Your task to perform on an android device: Clear the cart on costco.com. Add "acer predator" to the cart on costco.com Image 0: 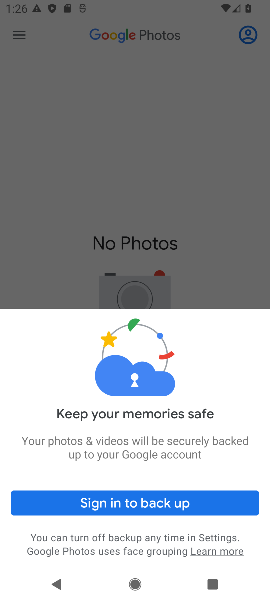
Step 0: press home button
Your task to perform on an android device: Clear the cart on costco.com. Add "acer predator" to the cart on costco.com Image 1: 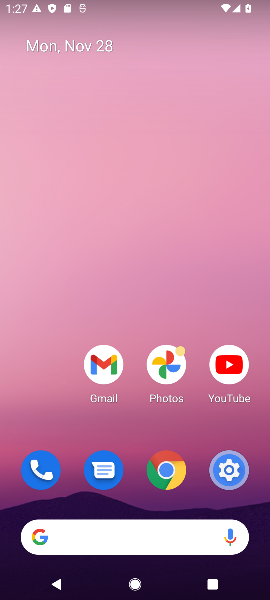
Step 1: click (163, 537)
Your task to perform on an android device: Clear the cart on costco.com. Add "acer predator" to the cart on costco.com Image 2: 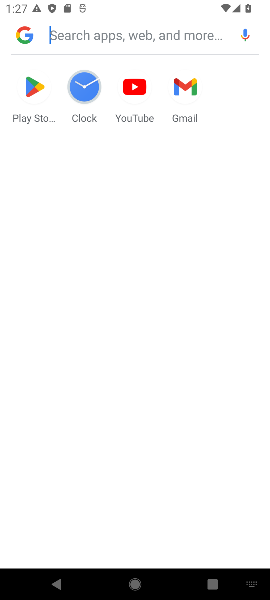
Step 2: type "costco.com"
Your task to perform on an android device: Clear the cart on costco.com. Add "acer predator" to the cart on costco.com Image 3: 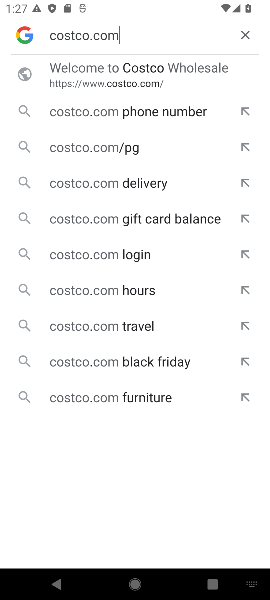
Step 3: click (101, 78)
Your task to perform on an android device: Clear the cart on costco.com. Add "acer predator" to the cart on costco.com Image 4: 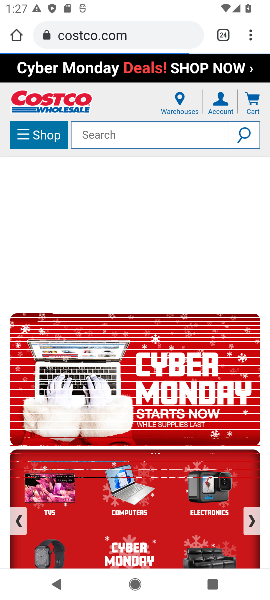
Step 4: click (133, 134)
Your task to perform on an android device: Clear the cart on costco.com. Add "acer predator" to the cart on costco.com Image 5: 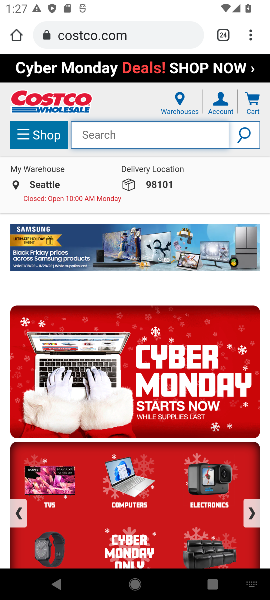
Step 5: type "predator"
Your task to perform on an android device: Clear the cart on costco.com. Add "acer predator" to the cart on costco.com Image 6: 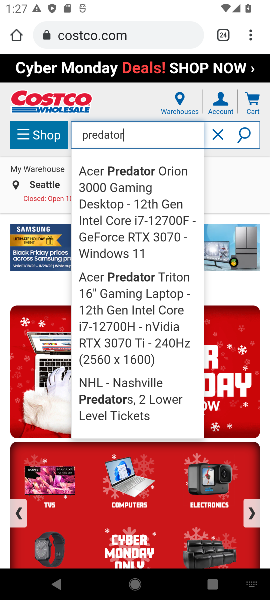
Step 6: click (145, 166)
Your task to perform on an android device: Clear the cart on costco.com. Add "acer predator" to the cart on costco.com Image 7: 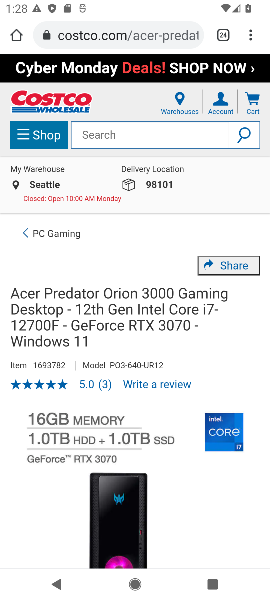
Step 7: drag from (204, 514) to (199, 295)
Your task to perform on an android device: Clear the cart on costco.com. Add "acer predator" to the cart on costco.com Image 8: 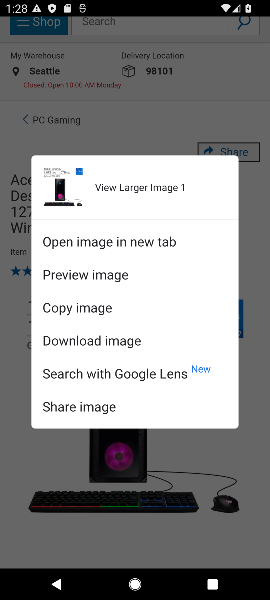
Step 8: click (217, 451)
Your task to perform on an android device: Clear the cart on costco.com. Add "acer predator" to the cart on costco.com Image 9: 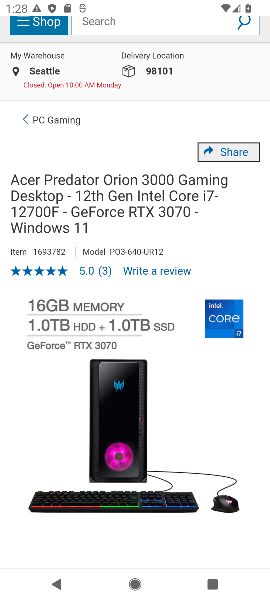
Step 9: drag from (165, 536) to (157, 339)
Your task to perform on an android device: Clear the cart on costco.com. Add "acer predator" to the cart on costco.com Image 10: 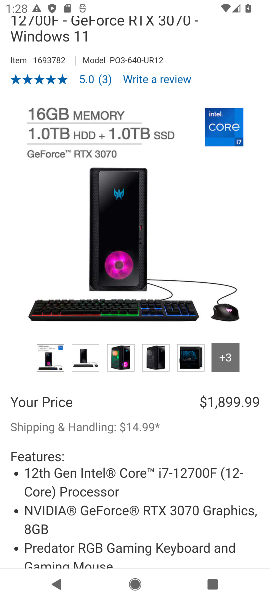
Step 10: drag from (169, 512) to (175, 298)
Your task to perform on an android device: Clear the cart on costco.com. Add "acer predator" to the cart on costco.com Image 11: 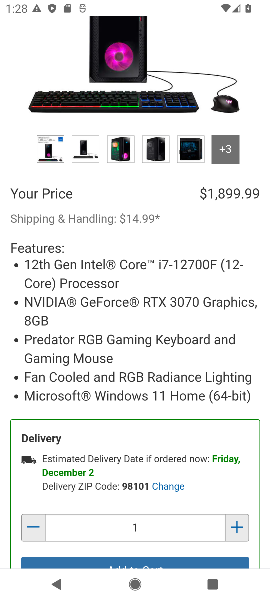
Step 11: click (164, 559)
Your task to perform on an android device: Clear the cart on costco.com. Add "acer predator" to the cart on costco.com Image 12: 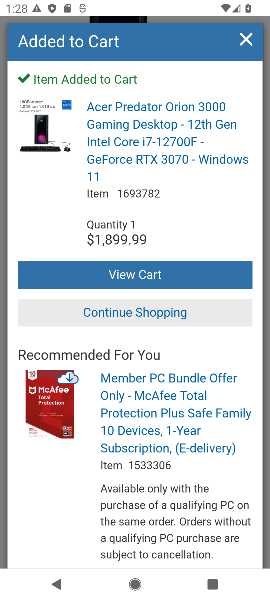
Step 12: task complete